Your task to perform on an android device: open chrome privacy settings Image 0: 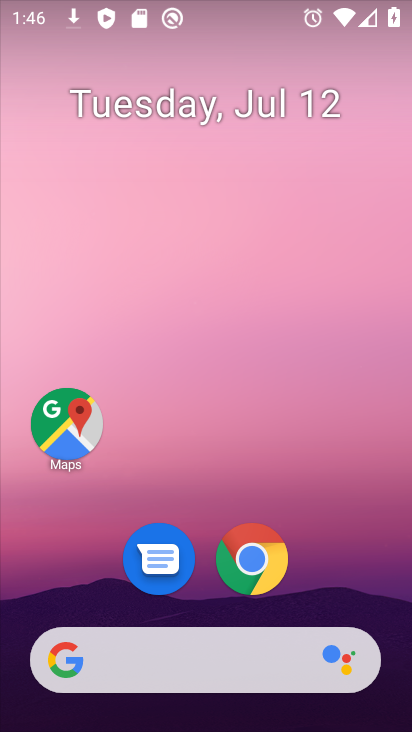
Step 0: drag from (371, 591) to (368, 158)
Your task to perform on an android device: open chrome privacy settings Image 1: 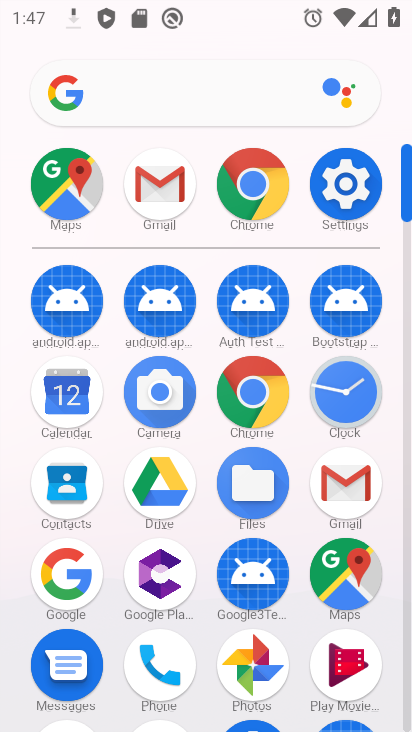
Step 1: click (263, 190)
Your task to perform on an android device: open chrome privacy settings Image 2: 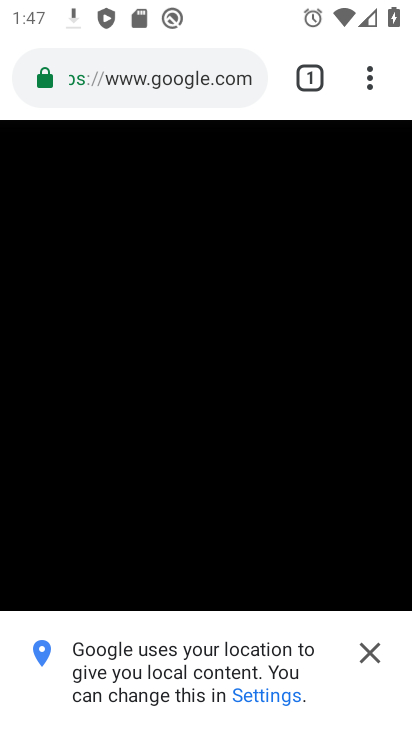
Step 2: click (371, 82)
Your task to perform on an android device: open chrome privacy settings Image 3: 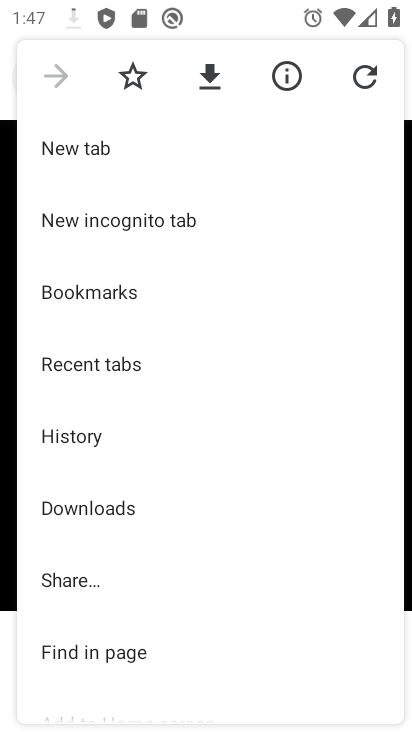
Step 3: drag from (321, 476) to (326, 406)
Your task to perform on an android device: open chrome privacy settings Image 4: 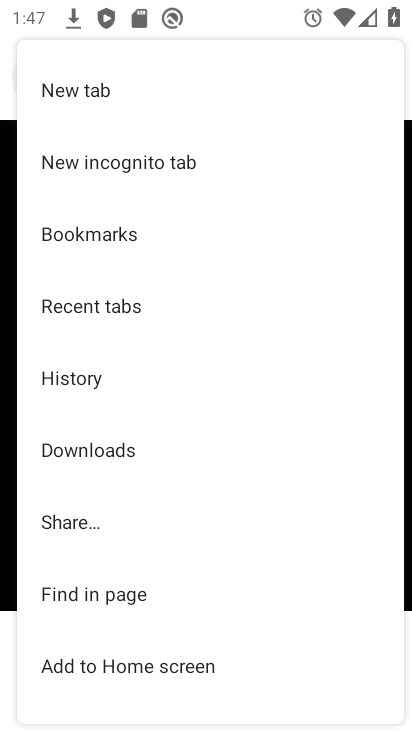
Step 4: drag from (325, 496) to (336, 364)
Your task to perform on an android device: open chrome privacy settings Image 5: 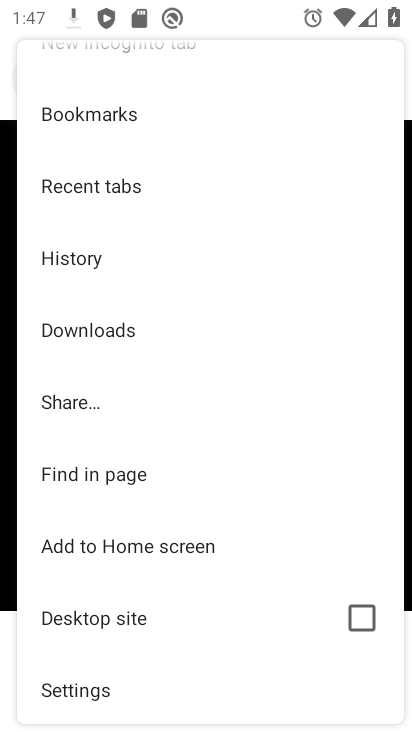
Step 5: drag from (286, 520) to (276, 416)
Your task to perform on an android device: open chrome privacy settings Image 6: 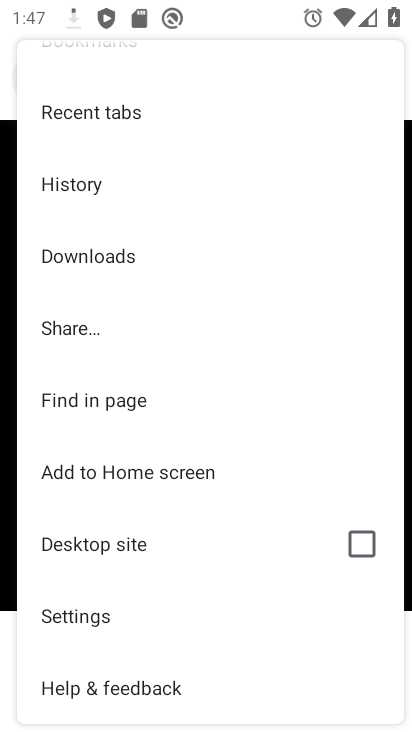
Step 6: click (193, 620)
Your task to perform on an android device: open chrome privacy settings Image 7: 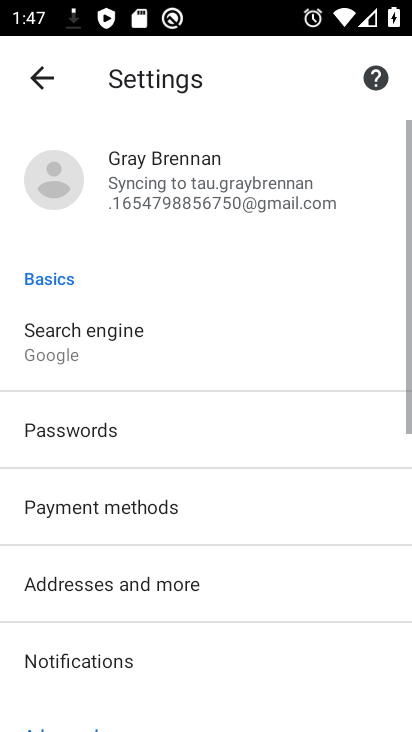
Step 7: drag from (289, 556) to (296, 459)
Your task to perform on an android device: open chrome privacy settings Image 8: 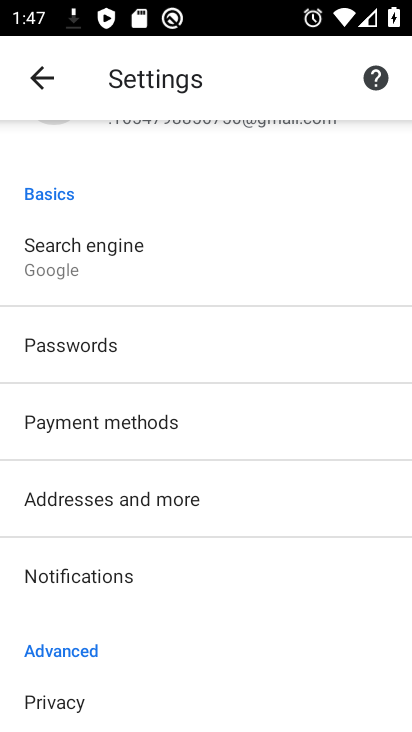
Step 8: drag from (302, 564) to (312, 456)
Your task to perform on an android device: open chrome privacy settings Image 9: 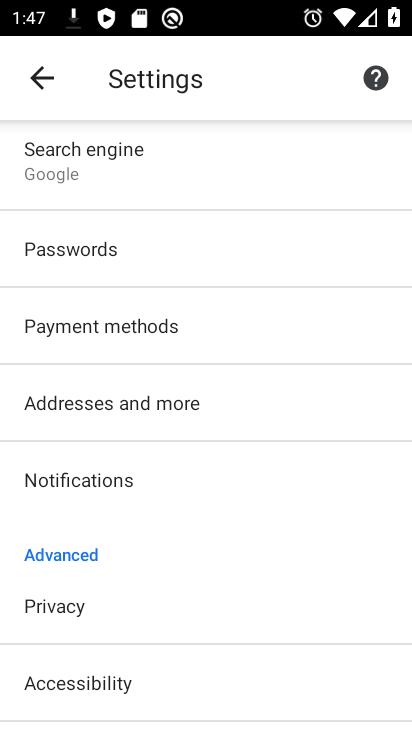
Step 9: drag from (314, 546) to (320, 395)
Your task to perform on an android device: open chrome privacy settings Image 10: 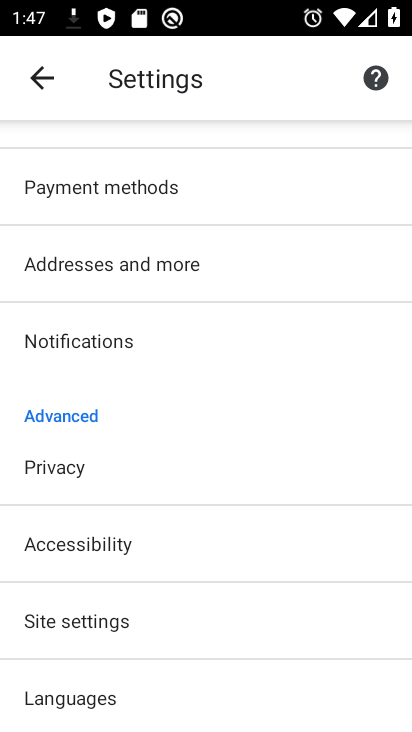
Step 10: drag from (297, 563) to (289, 241)
Your task to perform on an android device: open chrome privacy settings Image 11: 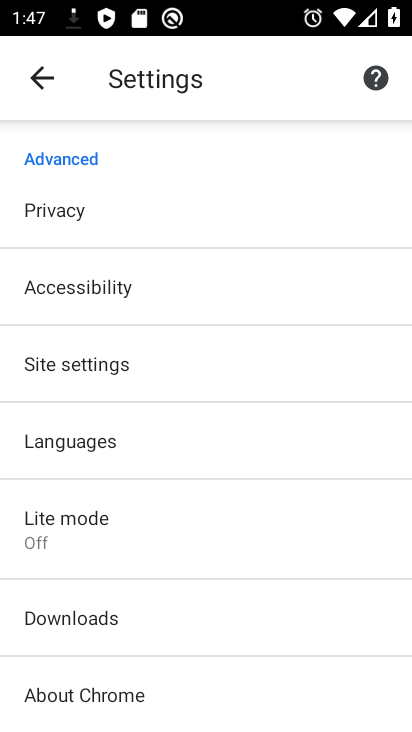
Step 11: click (267, 213)
Your task to perform on an android device: open chrome privacy settings Image 12: 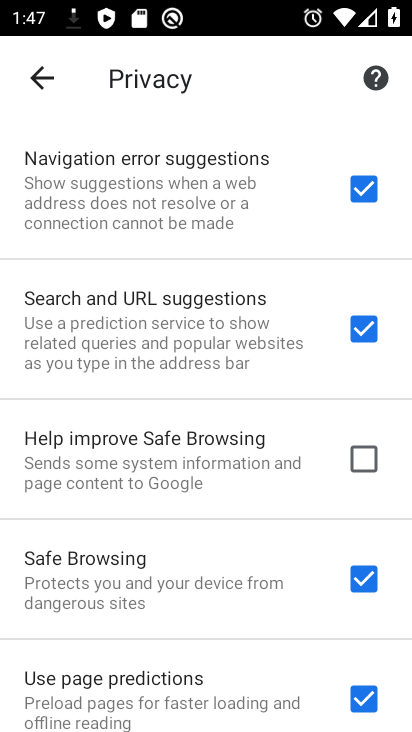
Step 12: task complete